Your task to perform on an android device: Go to ESPN.com Image 0: 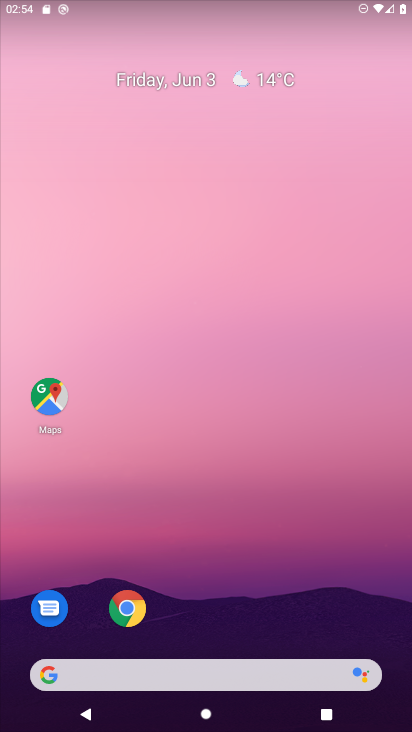
Step 0: click (125, 602)
Your task to perform on an android device: Go to ESPN.com Image 1: 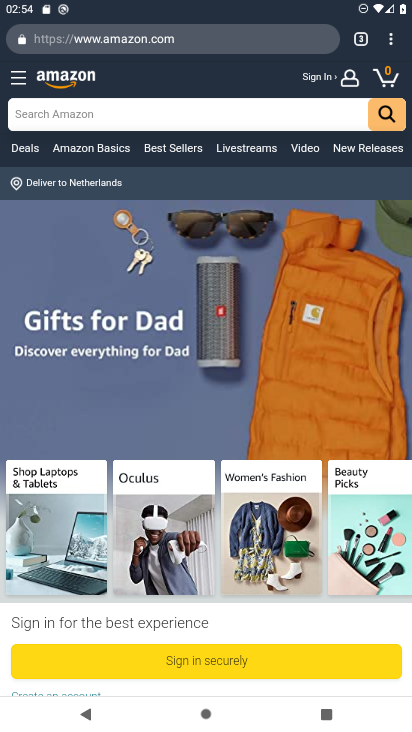
Step 1: click (192, 40)
Your task to perform on an android device: Go to ESPN.com Image 2: 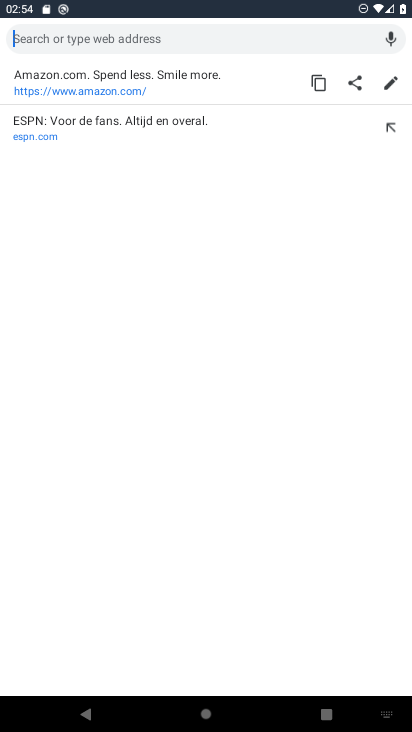
Step 2: click (44, 139)
Your task to perform on an android device: Go to ESPN.com Image 3: 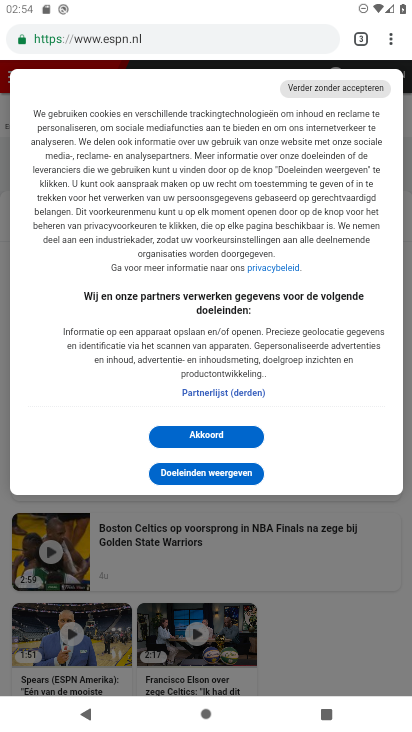
Step 3: task complete